Your task to perform on an android device: turn off location Image 0: 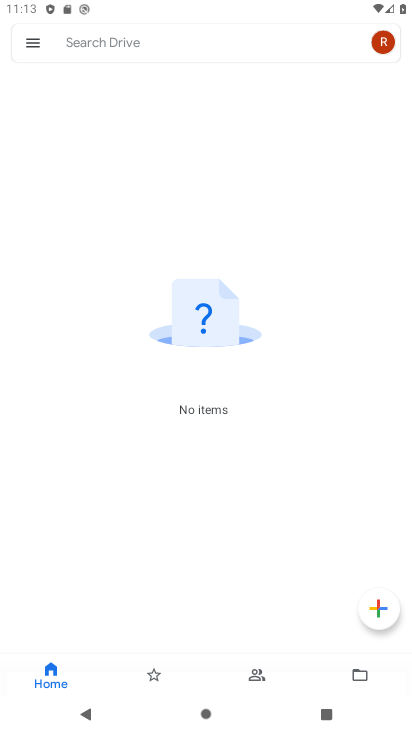
Step 0: press home button
Your task to perform on an android device: turn off location Image 1: 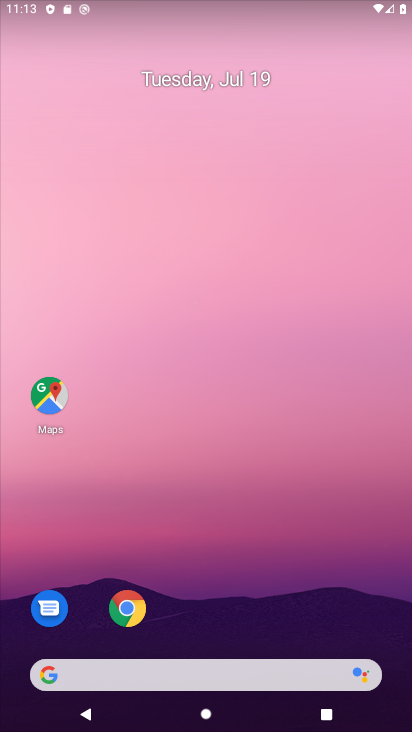
Step 1: drag from (256, 497) to (276, 34)
Your task to perform on an android device: turn off location Image 2: 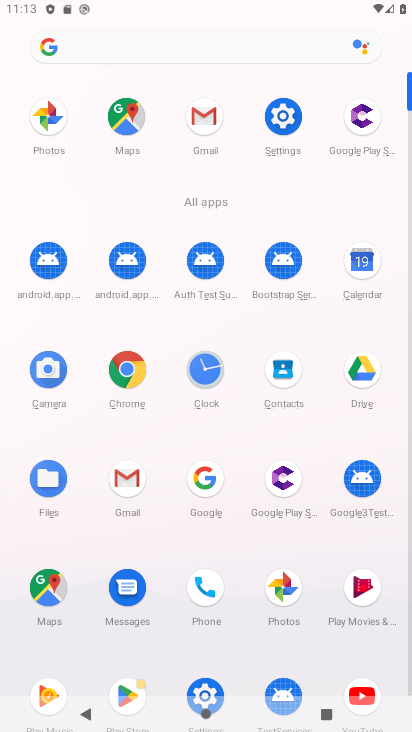
Step 2: click (285, 118)
Your task to perform on an android device: turn off location Image 3: 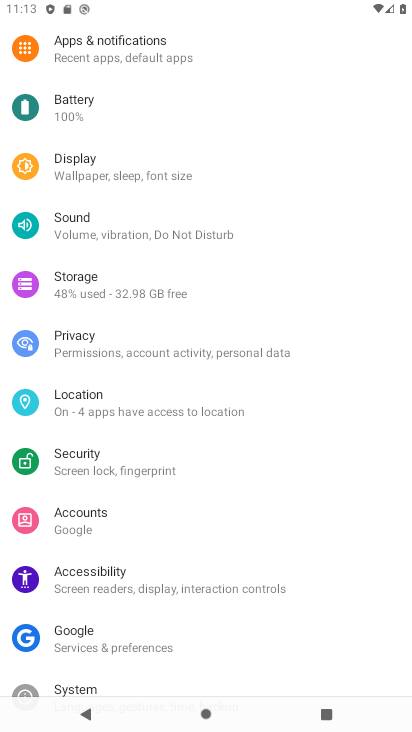
Step 3: click (72, 413)
Your task to perform on an android device: turn off location Image 4: 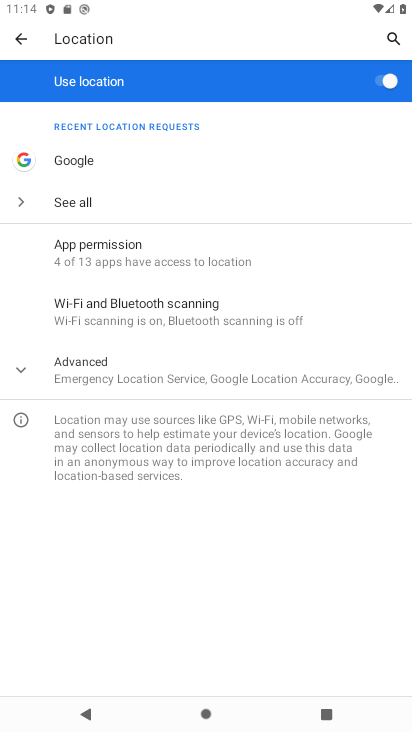
Step 4: click (384, 74)
Your task to perform on an android device: turn off location Image 5: 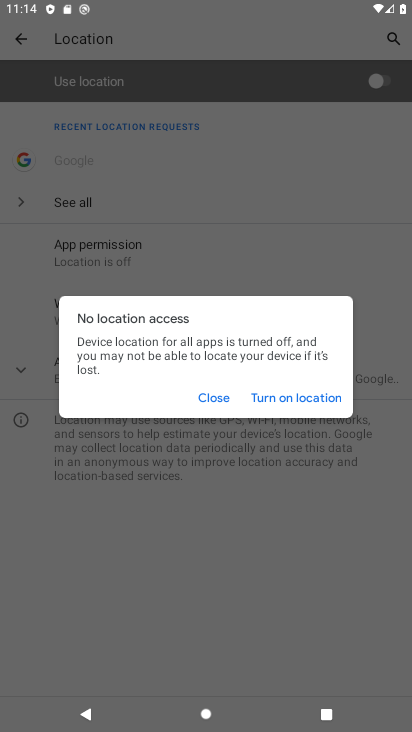
Step 5: click (211, 401)
Your task to perform on an android device: turn off location Image 6: 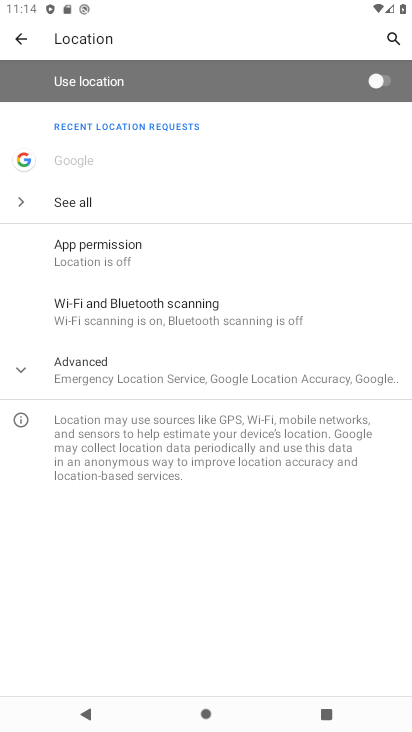
Step 6: task complete